Your task to perform on an android device: Open the map Image 0: 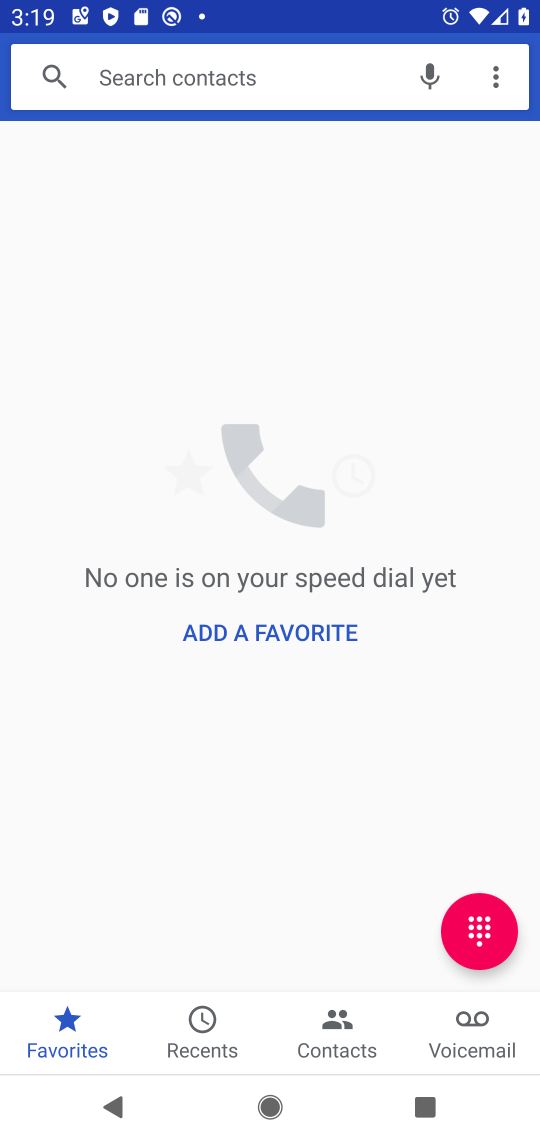
Step 0: press back button
Your task to perform on an android device: Open the map Image 1: 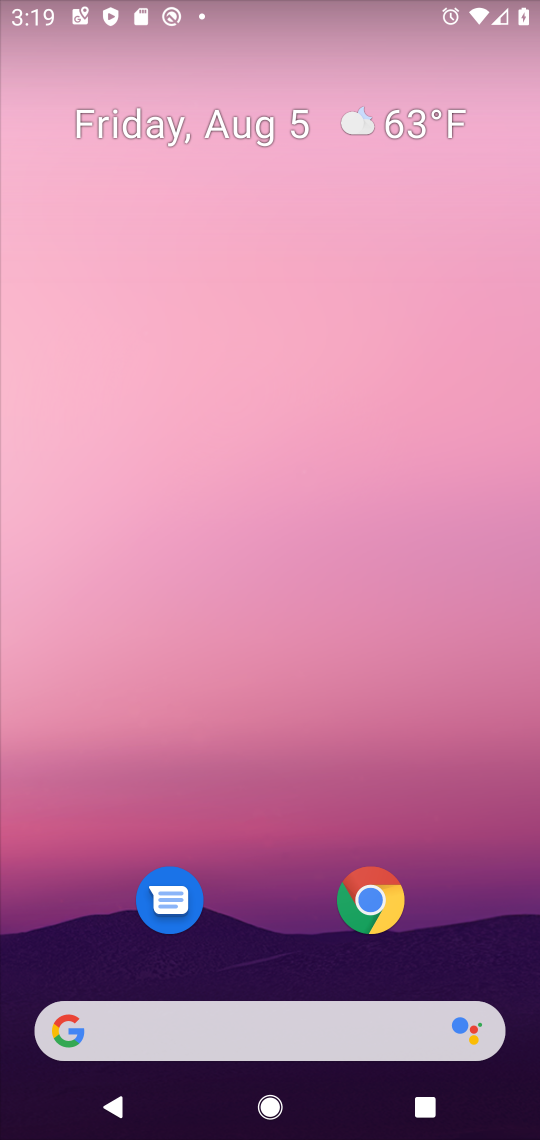
Step 1: drag from (265, 670) to (299, 93)
Your task to perform on an android device: Open the map Image 2: 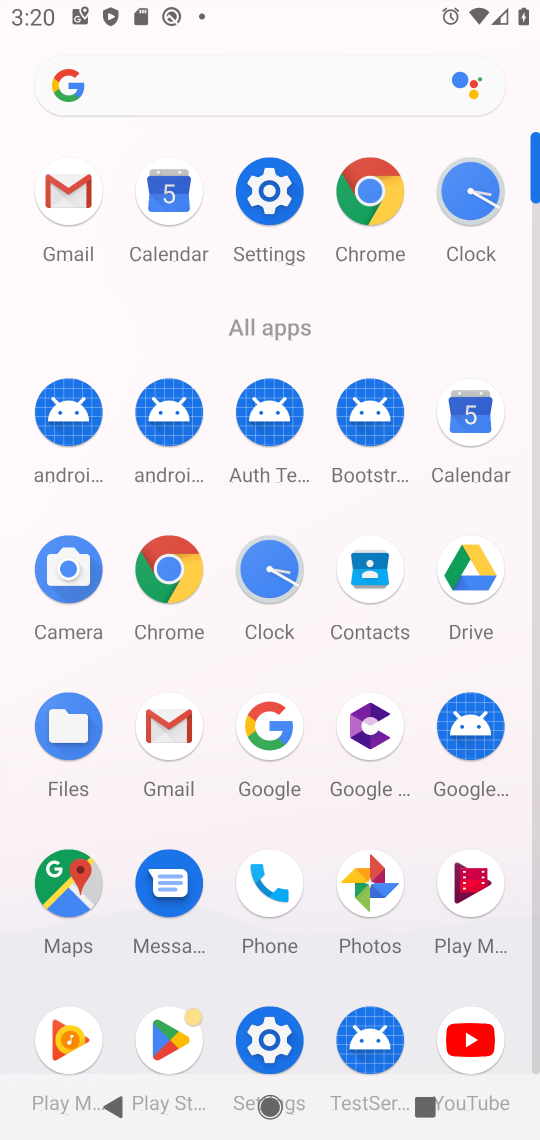
Step 2: click (63, 881)
Your task to perform on an android device: Open the map Image 3: 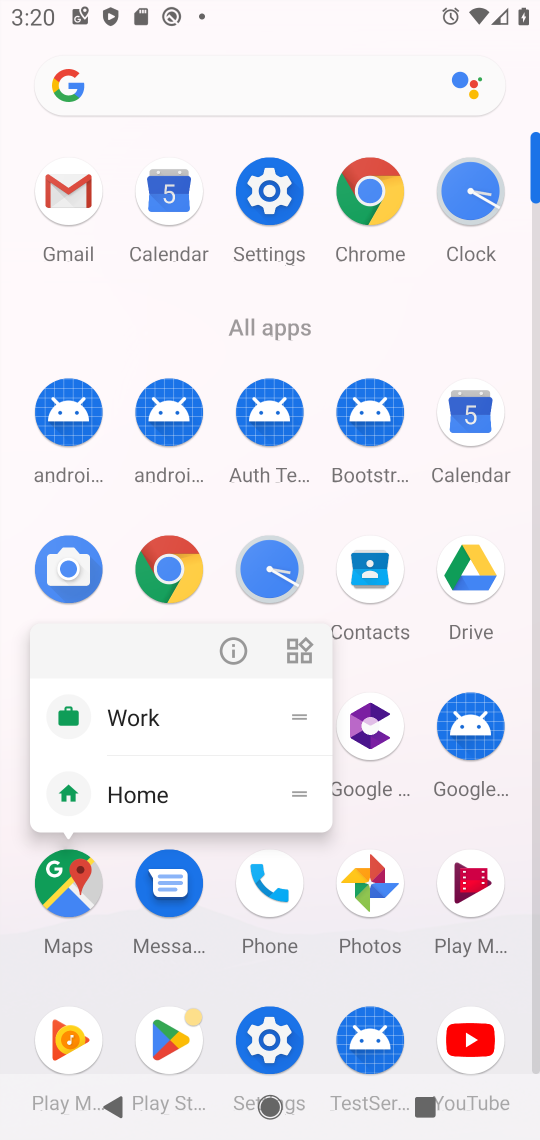
Step 3: click (59, 886)
Your task to perform on an android device: Open the map Image 4: 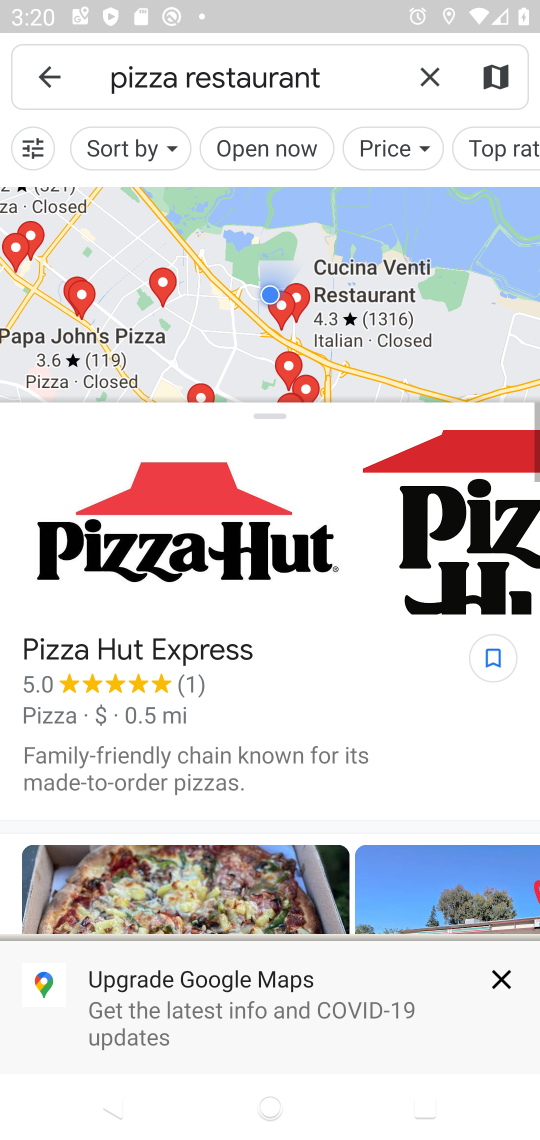
Step 4: task complete